Your task to perform on an android device: toggle translation in the chrome app Image 0: 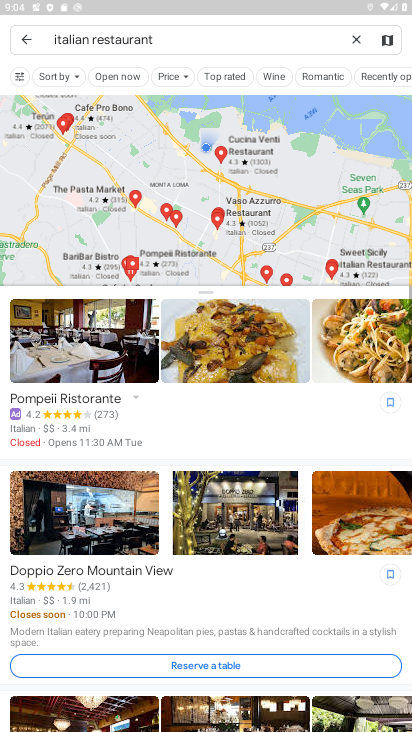
Step 0: press home button
Your task to perform on an android device: toggle translation in the chrome app Image 1: 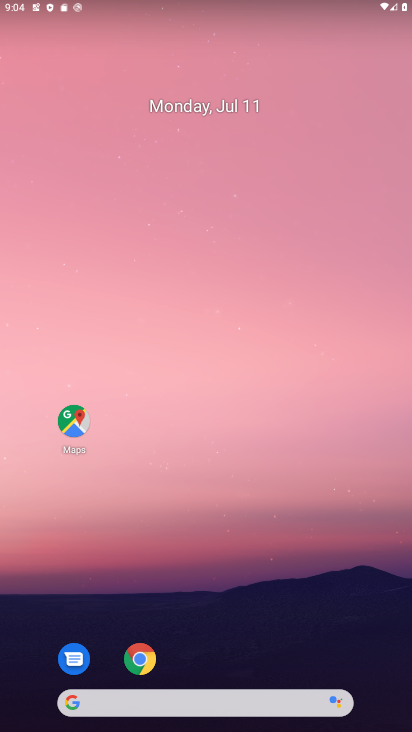
Step 1: drag from (204, 695) to (203, 100)
Your task to perform on an android device: toggle translation in the chrome app Image 2: 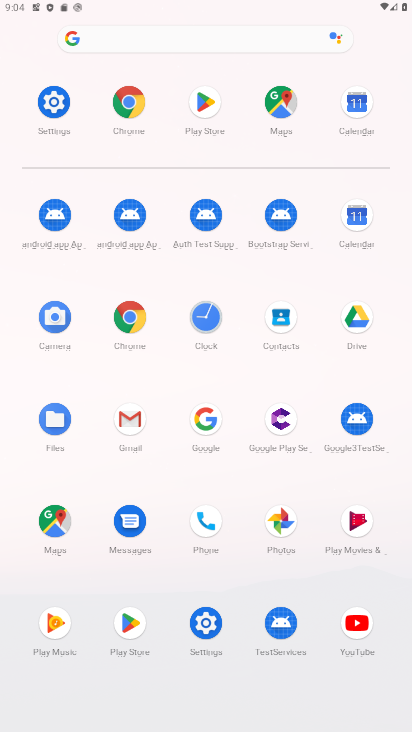
Step 2: click (127, 100)
Your task to perform on an android device: toggle translation in the chrome app Image 3: 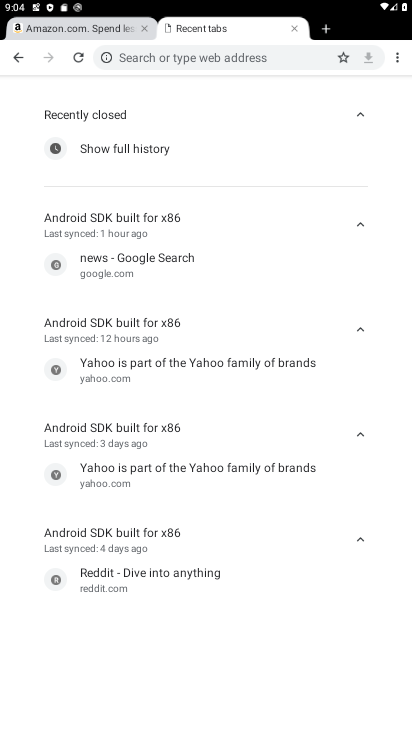
Step 3: click (398, 57)
Your task to perform on an android device: toggle translation in the chrome app Image 4: 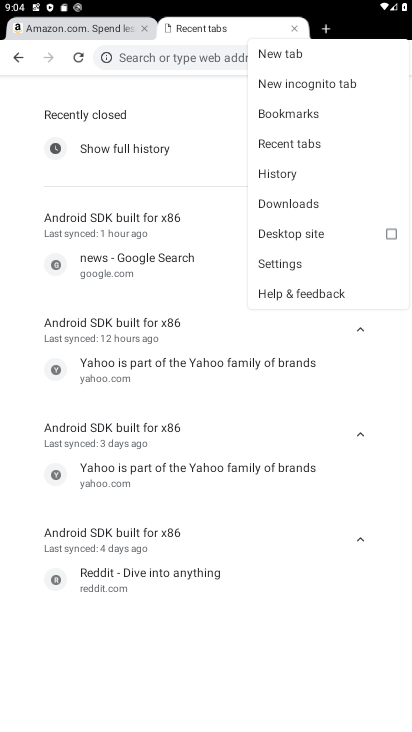
Step 4: click (282, 262)
Your task to perform on an android device: toggle translation in the chrome app Image 5: 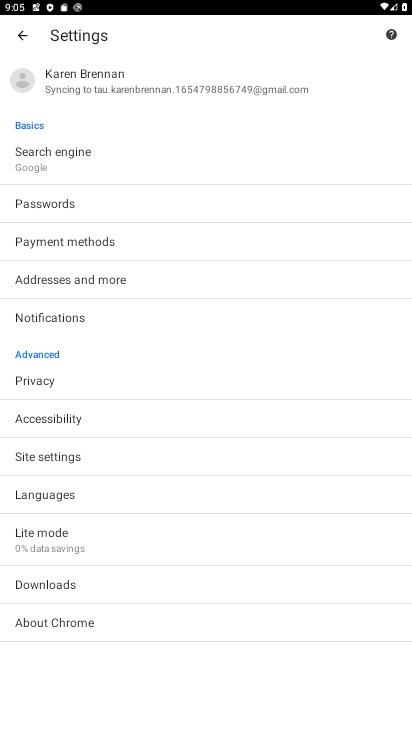
Step 5: click (54, 493)
Your task to perform on an android device: toggle translation in the chrome app Image 6: 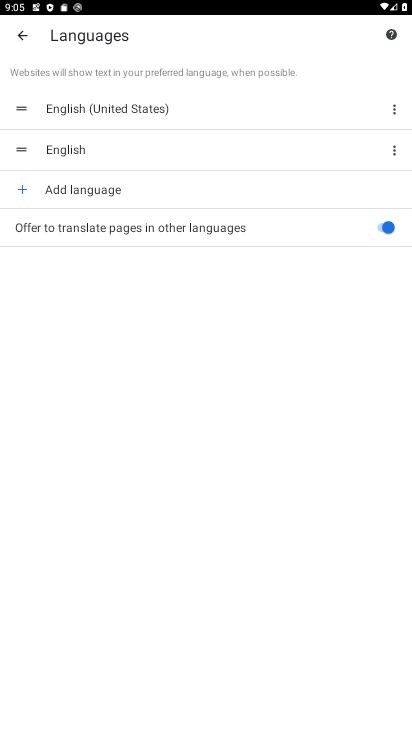
Step 6: click (388, 231)
Your task to perform on an android device: toggle translation in the chrome app Image 7: 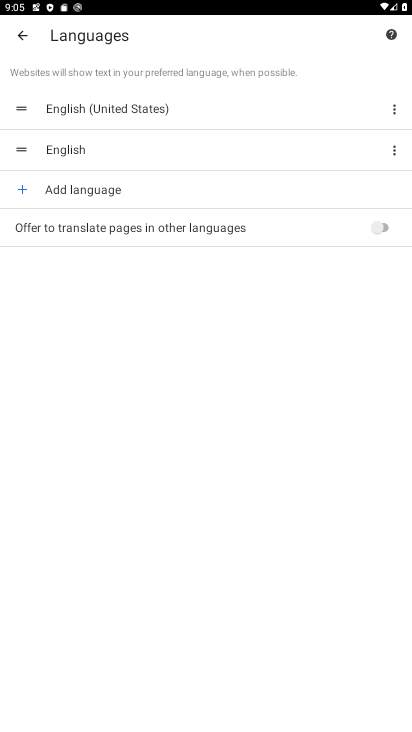
Step 7: task complete